Your task to perform on an android device: change the clock display to analog Image 0: 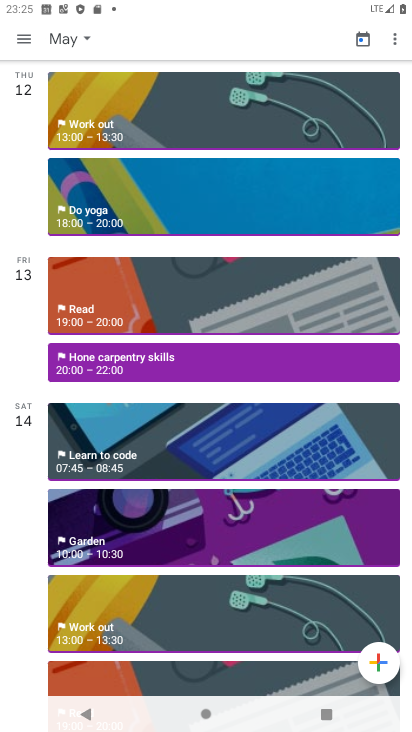
Step 0: press home button
Your task to perform on an android device: change the clock display to analog Image 1: 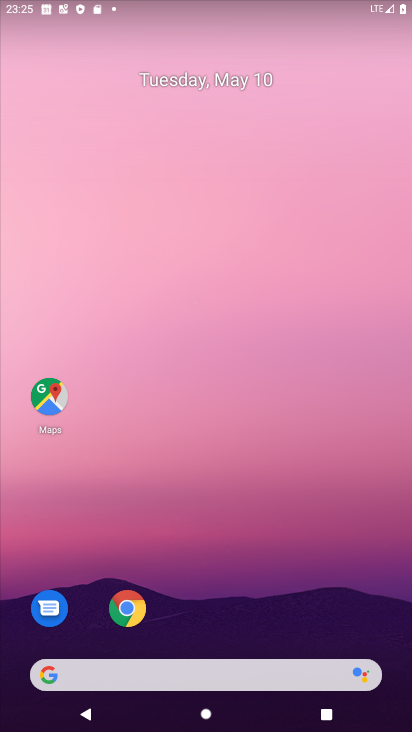
Step 1: drag from (249, 634) to (241, 270)
Your task to perform on an android device: change the clock display to analog Image 2: 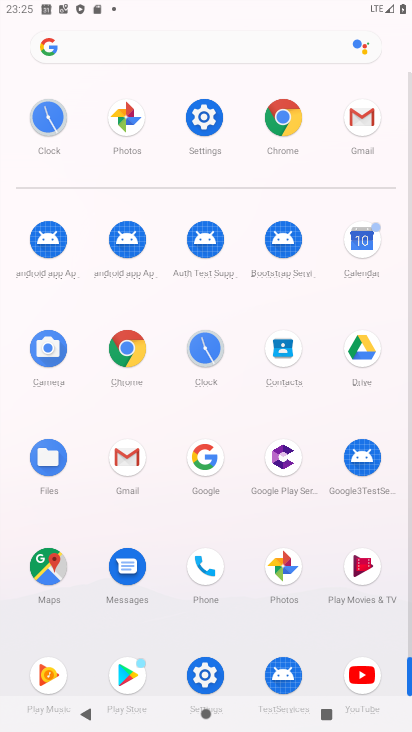
Step 2: click (197, 348)
Your task to perform on an android device: change the clock display to analog Image 3: 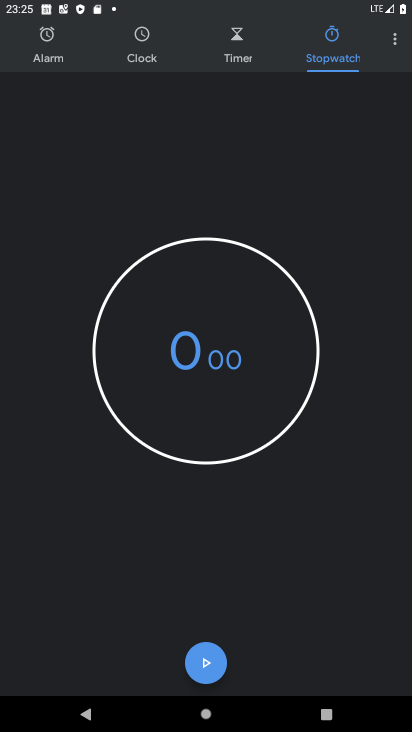
Step 3: click (387, 48)
Your task to perform on an android device: change the clock display to analog Image 4: 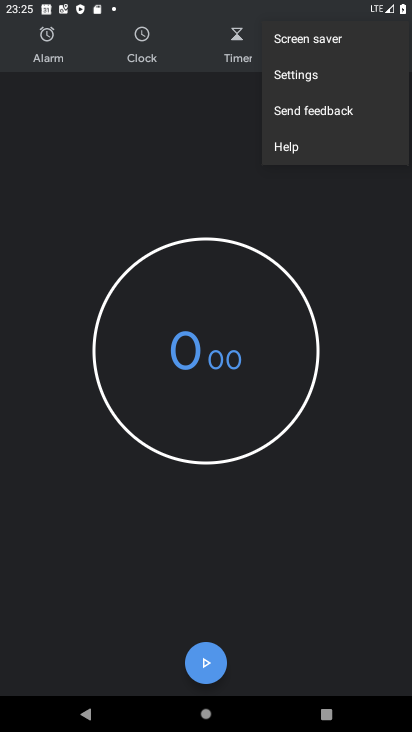
Step 4: click (302, 80)
Your task to perform on an android device: change the clock display to analog Image 5: 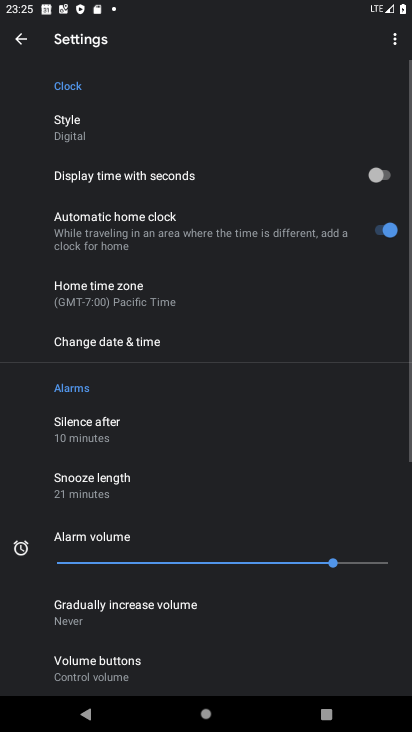
Step 5: click (95, 123)
Your task to perform on an android device: change the clock display to analog Image 6: 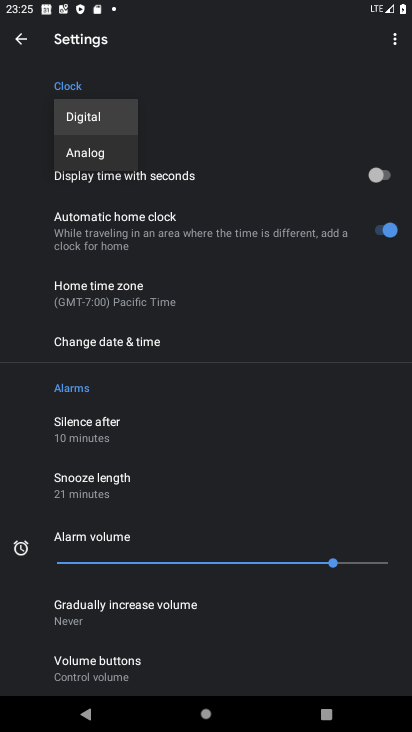
Step 6: click (108, 151)
Your task to perform on an android device: change the clock display to analog Image 7: 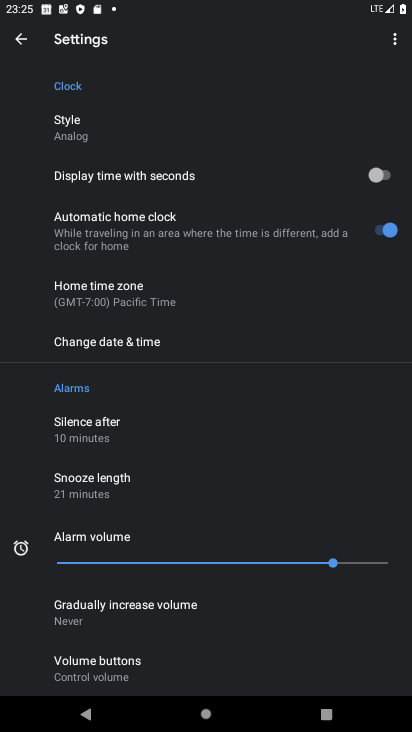
Step 7: task complete